Your task to perform on an android device: Open Android settings Image 0: 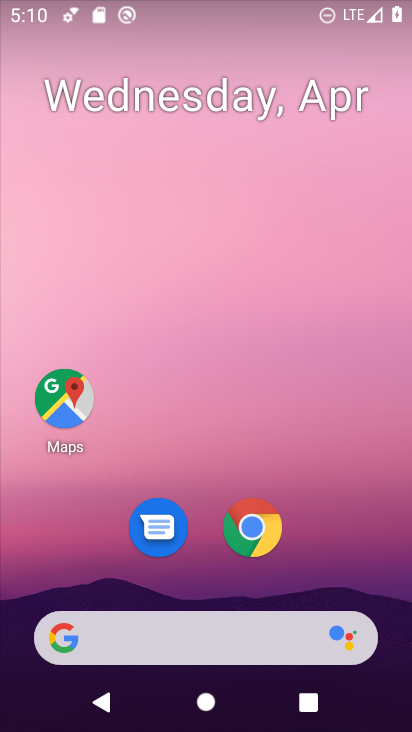
Step 0: drag from (385, 593) to (367, 5)
Your task to perform on an android device: Open Android settings Image 1: 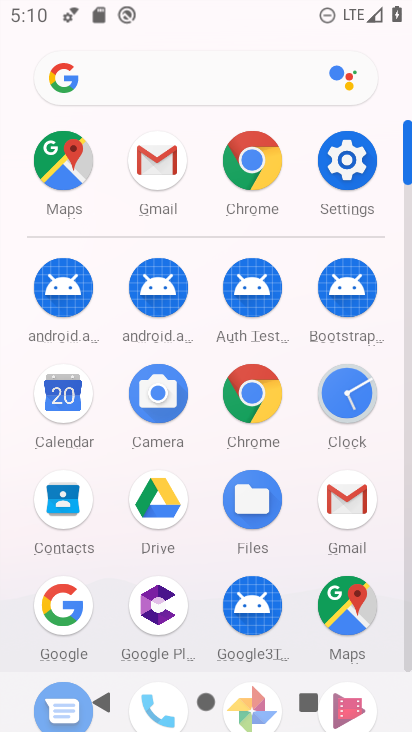
Step 1: click (345, 171)
Your task to perform on an android device: Open Android settings Image 2: 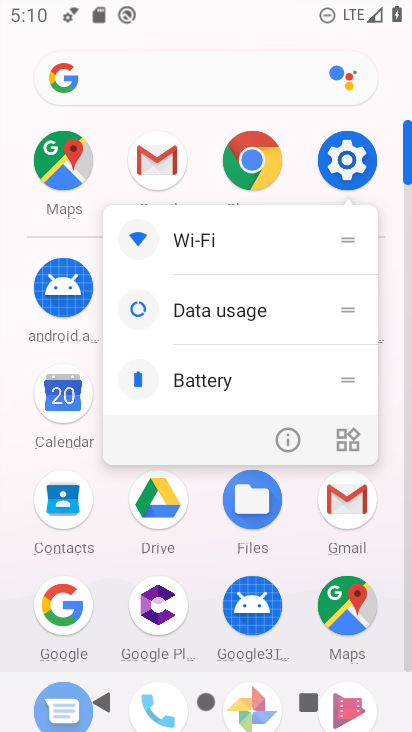
Step 2: click (353, 165)
Your task to perform on an android device: Open Android settings Image 3: 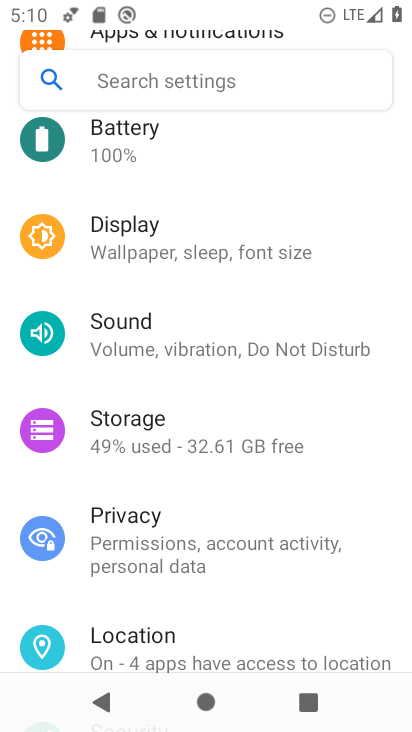
Step 3: drag from (285, 609) to (291, 99)
Your task to perform on an android device: Open Android settings Image 4: 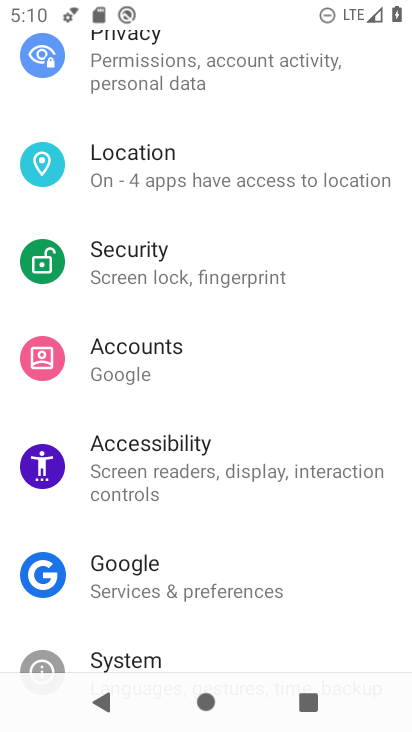
Step 4: drag from (261, 481) to (255, 125)
Your task to perform on an android device: Open Android settings Image 5: 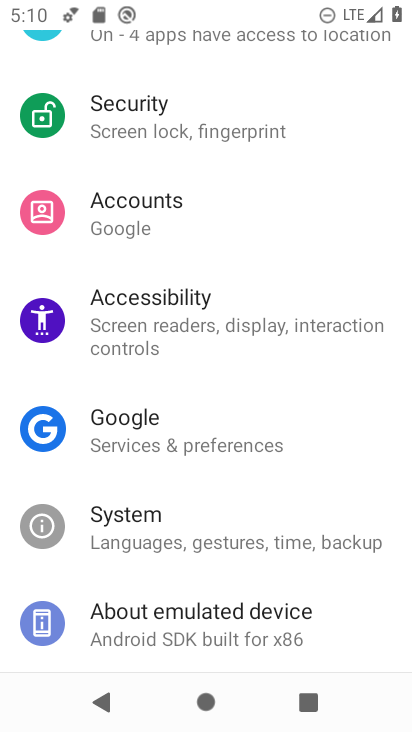
Step 5: drag from (222, 500) to (225, 131)
Your task to perform on an android device: Open Android settings Image 6: 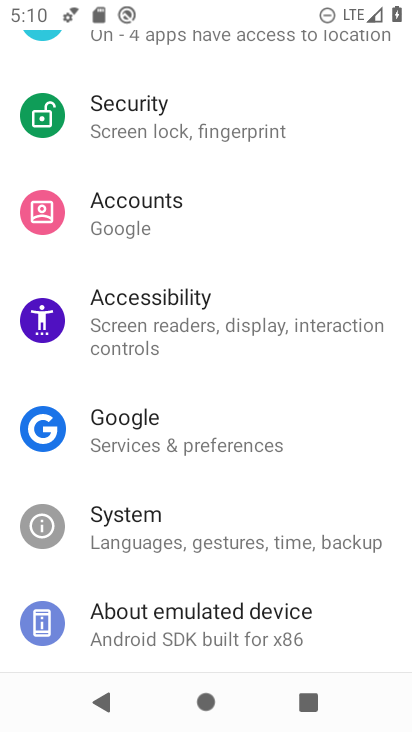
Step 6: click (186, 543)
Your task to perform on an android device: Open Android settings Image 7: 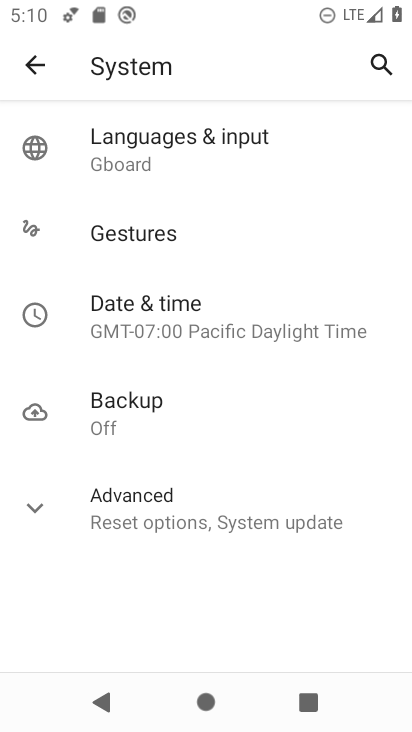
Step 7: click (32, 516)
Your task to perform on an android device: Open Android settings Image 8: 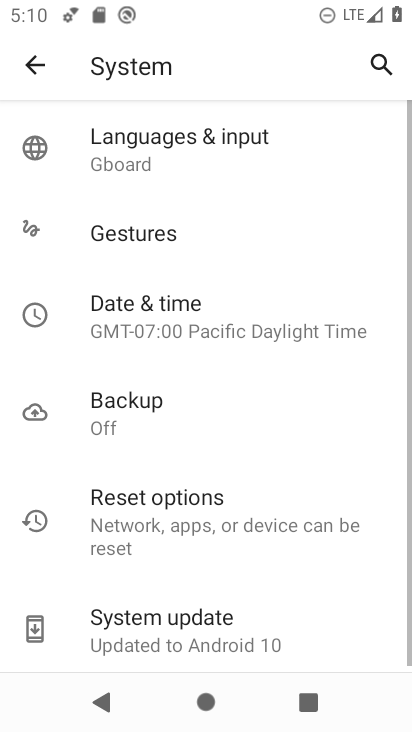
Step 8: task complete